Your task to perform on an android device: open app "HBO Max: Stream TV & Movies" (install if not already installed) Image 0: 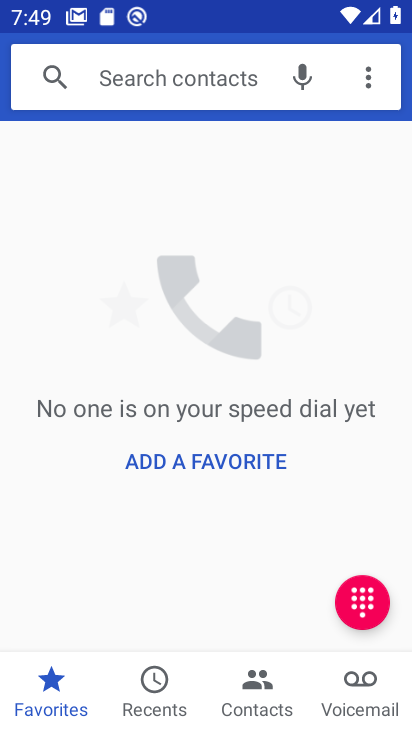
Step 0: press home button
Your task to perform on an android device: open app "HBO Max: Stream TV & Movies" (install if not already installed) Image 1: 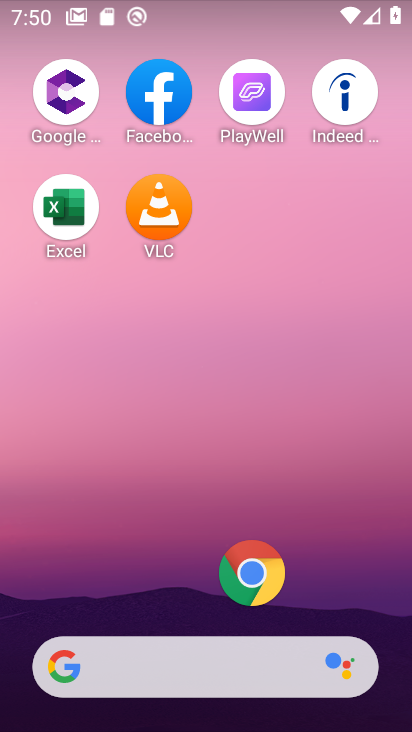
Step 1: drag from (180, 596) to (218, 92)
Your task to perform on an android device: open app "HBO Max: Stream TV & Movies" (install if not already installed) Image 2: 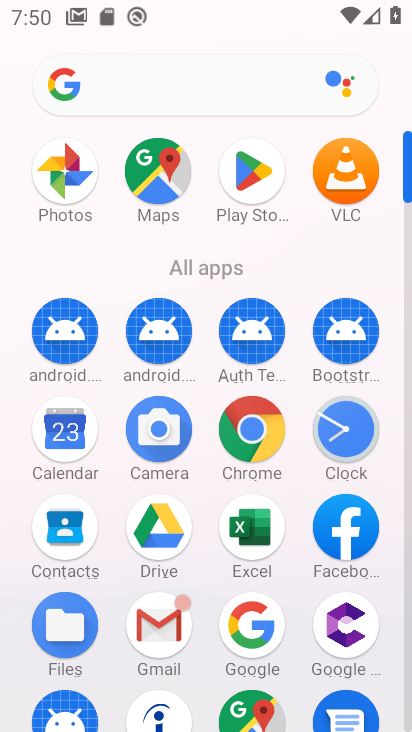
Step 2: click (252, 177)
Your task to perform on an android device: open app "HBO Max: Stream TV & Movies" (install if not already installed) Image 3: 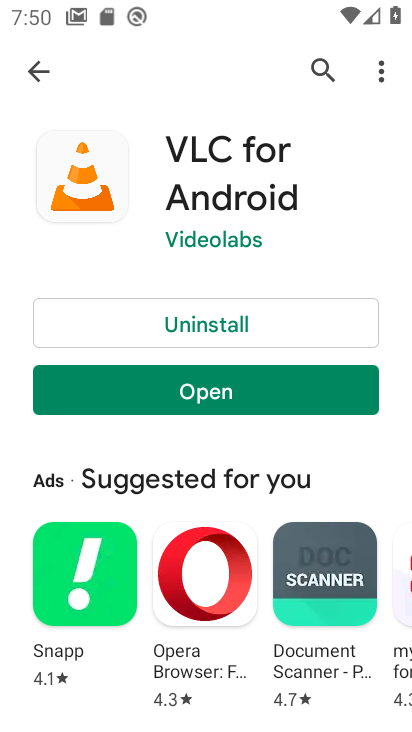
Step 3: click (26, 67)
Your task to perform on an android device: open app "HBO Max: Stream TV & Movies" (install if not already installed) Image 4: 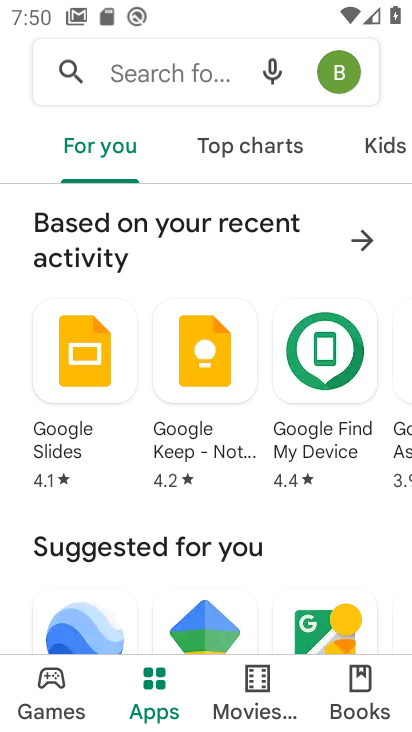
Step 4: click (170, 66)
Your task to perform on an android device: open app "HBO Max: Stream TV & Movies" (install if not already installed) Image 5: 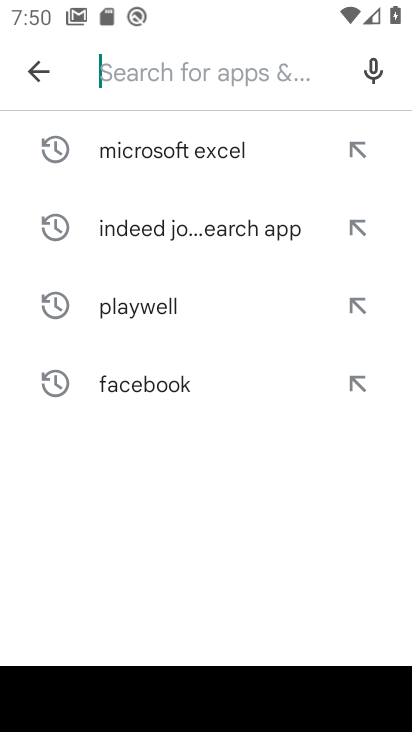
Step 5: type "HBO Max: Stream TV & Movies"
Your task to perform on an android device: open app "HBO Max: Stream TV & Movies" (install if not already installed) Image 6: 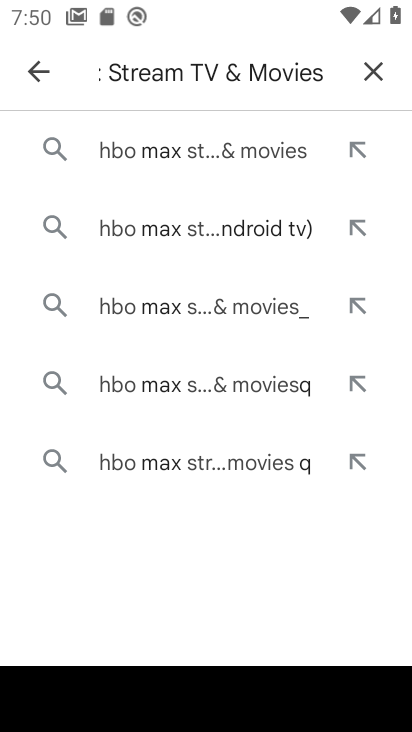
Step 6: click (126, 139)
Your task to perform on an android device: open app "HBO Max: Stream TV & Movies" (install if not already installed) Image 7: 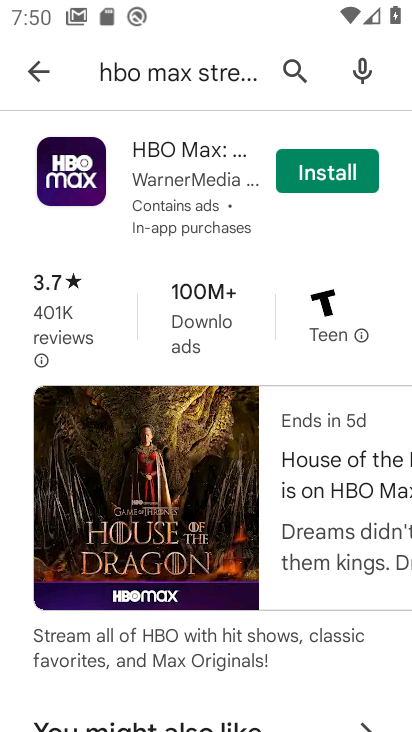
Step 7: click (337, 179)
Your task to perform on an android device: open app "HBO Max: Stream TV & Movies" (install if not already installed) Image 8: 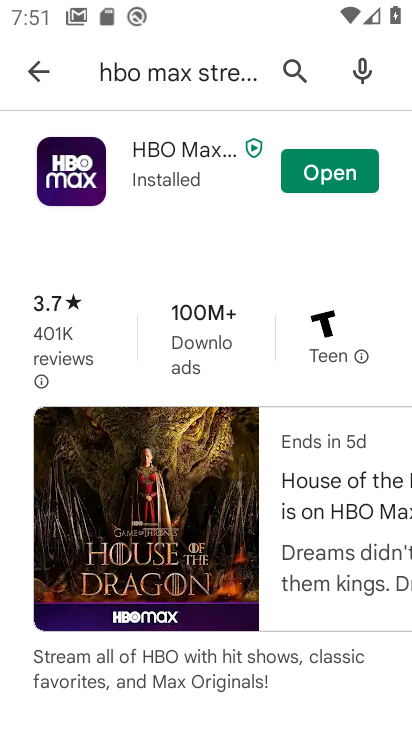
Step 8: click (345, 171)
Your task to perform on an android device: open app "HBO Max: Stream TV & Movies" (install if not already installed) Image 9: 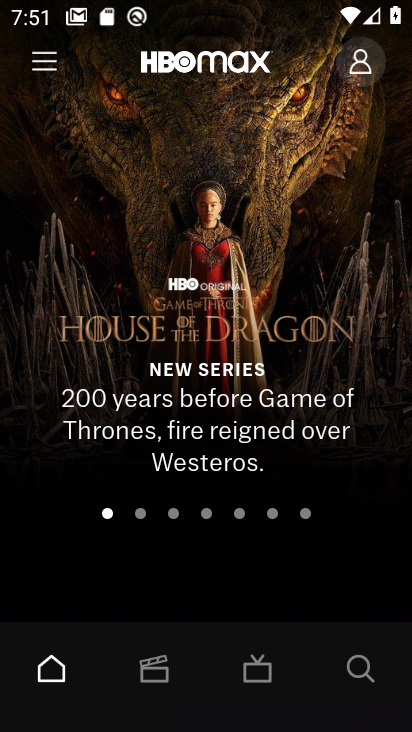
Step 9: task complete